Your task to perform on an android device: Nike Air Max 2020 shoes on Nike.com Image 0: 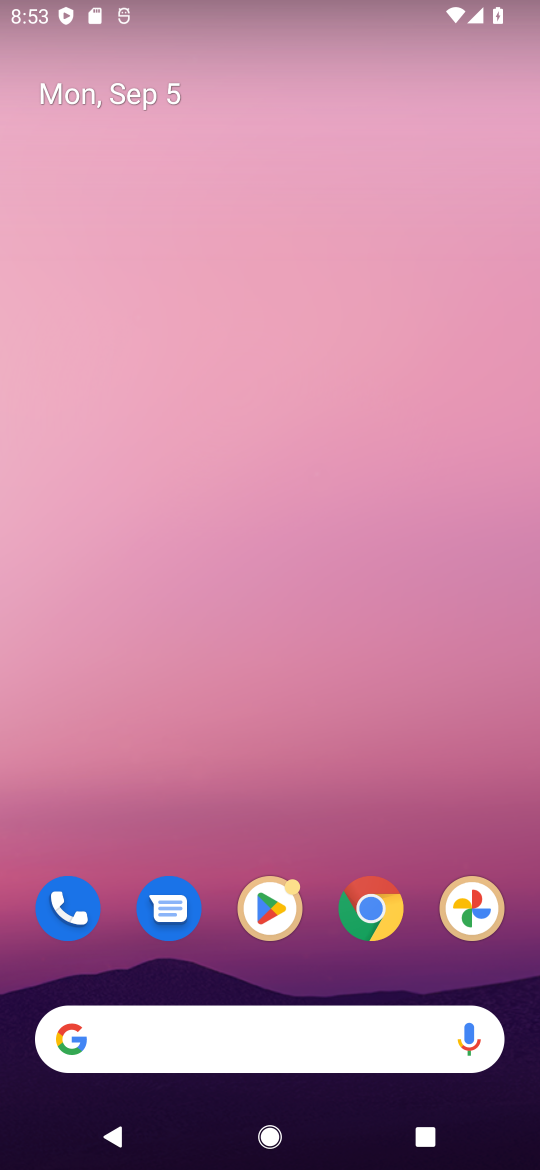
Step 0: click (378, 950)
Your task to perform on an android device: Nike Air Max 2020 shoes on Nike.com Image 1: 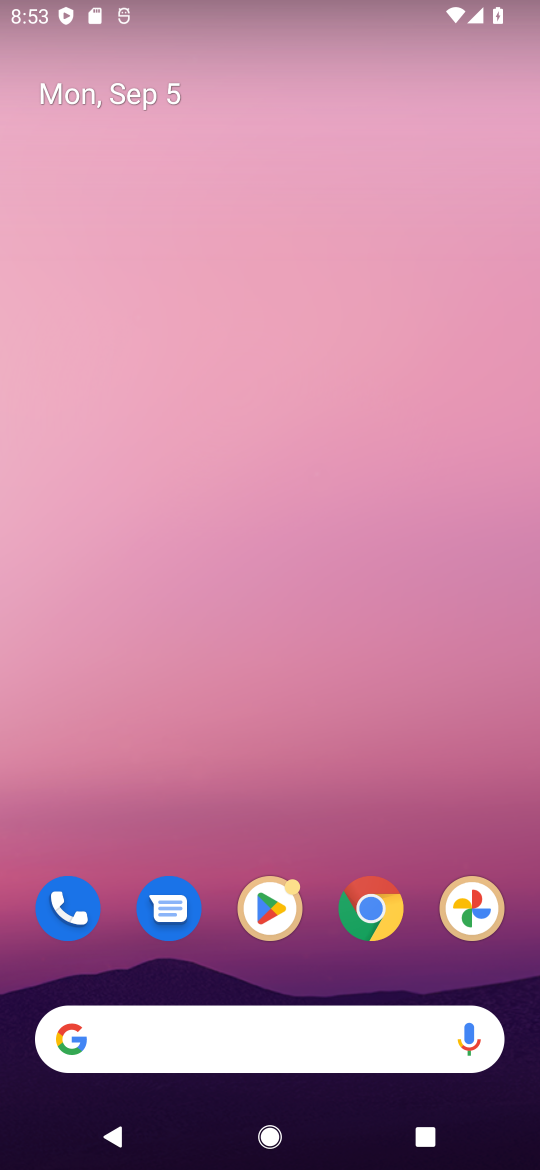
Step 1: click (368, 925)
Your task to perform on an android device: Nike Air Max 2020 shoes on Nike.com Image 2: 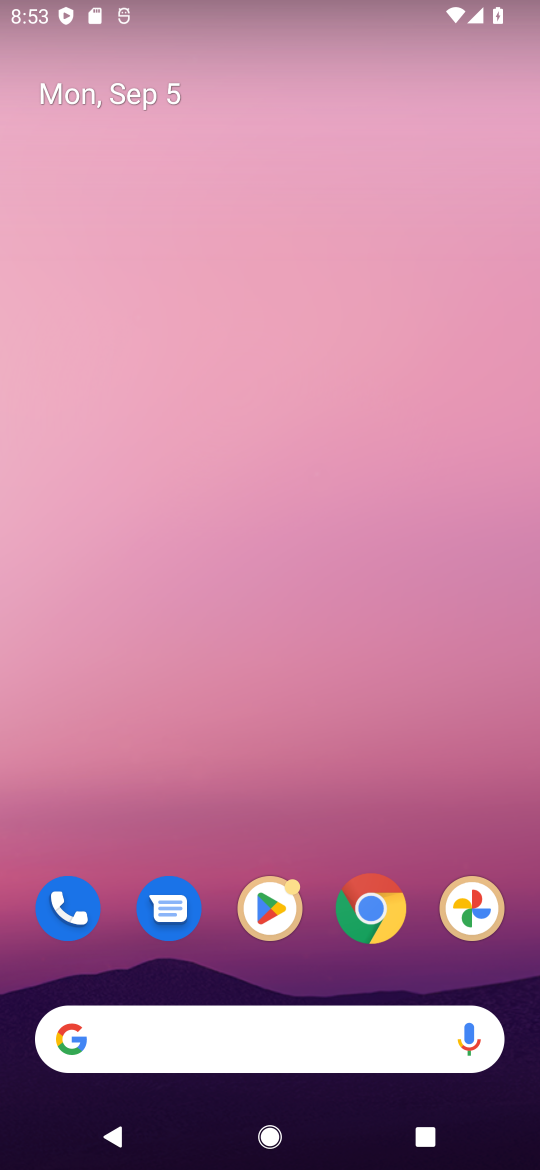
Step 2: click (379, 896)
Your task to perform on an android device: Nike Air Max 2020 shoes on Nike.com Image 3: 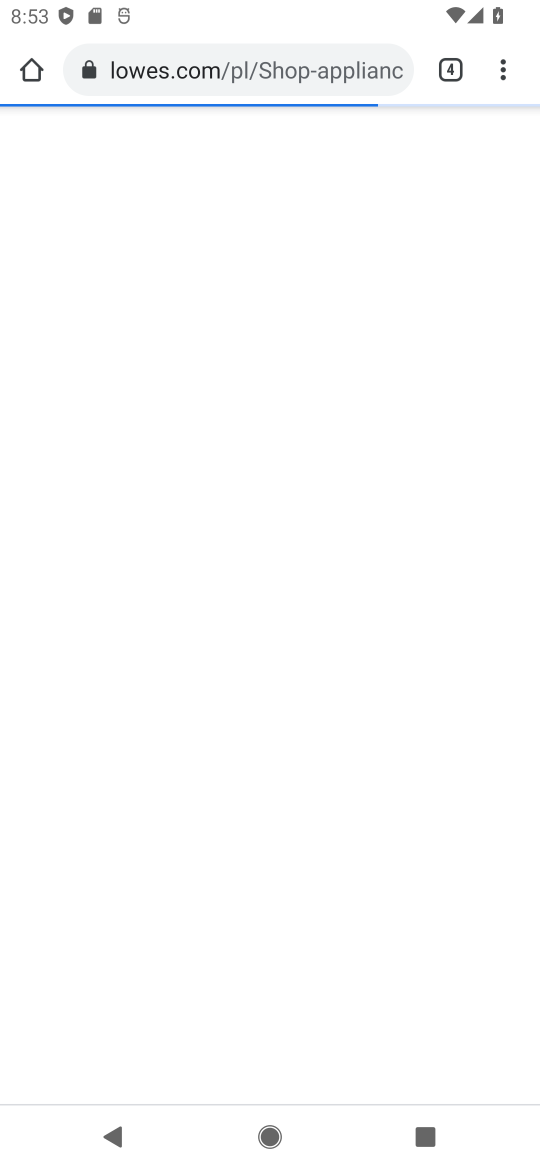
Step 3: click (318, 57)
Your task to perform on an android device: Nike Air Max 2020 shoes on Nike.com Image 4: 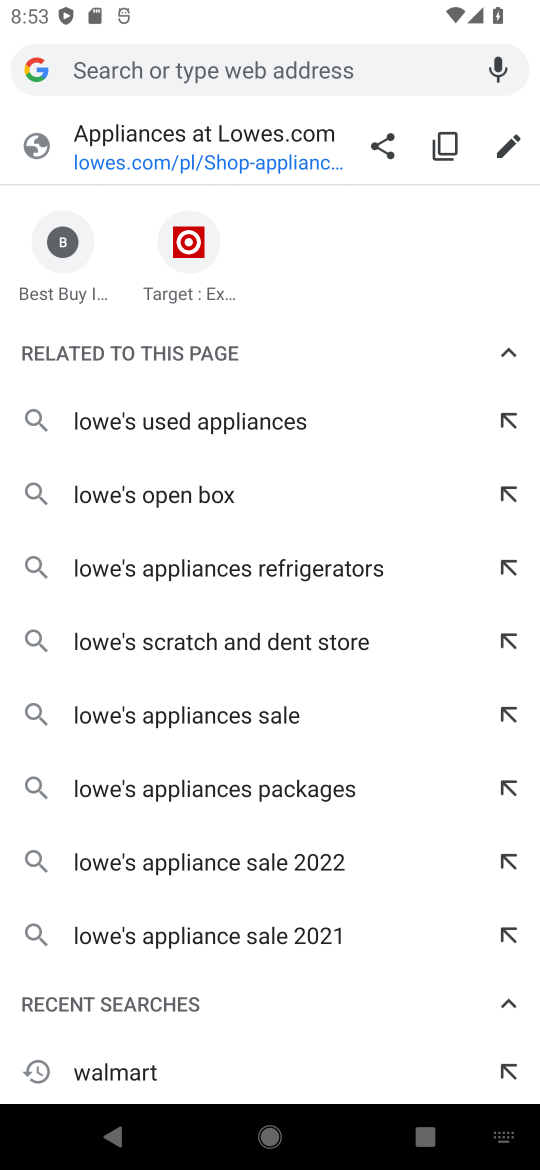
Step 4: type "Nike.com"
Your task to perform on an android device: Nike Air Max 2020 shoes on Nike.com Image 5: 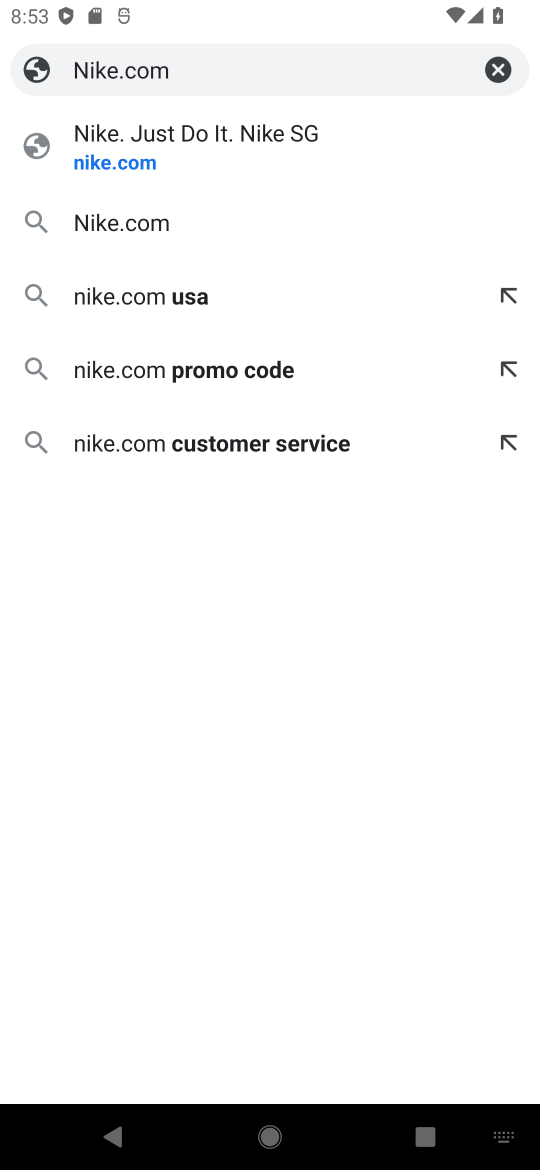
Step 5: click (127, 128)
Your task to perform on an android device: Nike Air Max 2020 shoes on Nike.com Image 6: 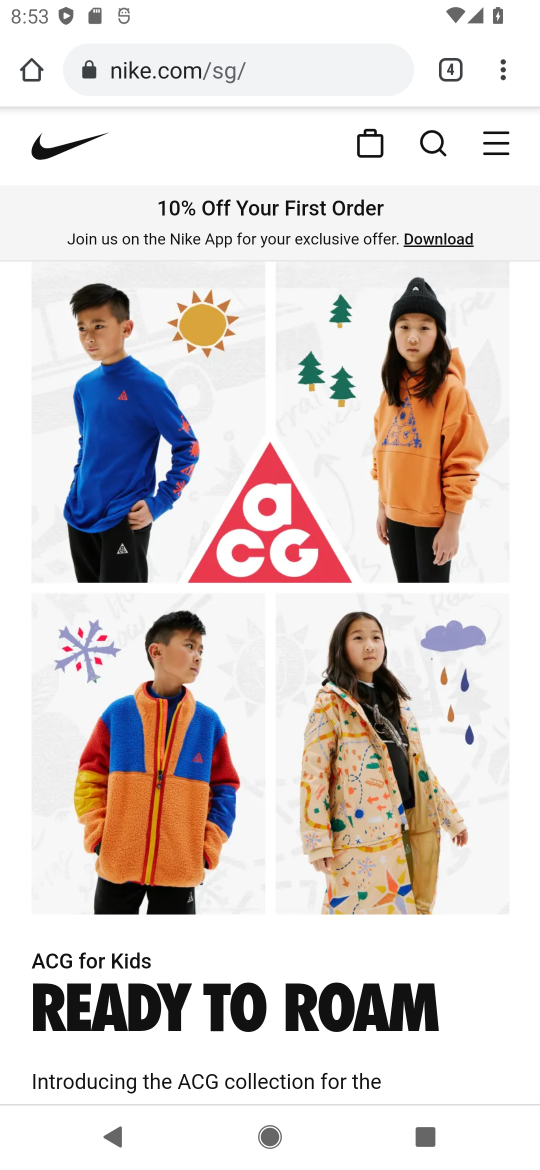
Step 6: click (433, 143)
Your task to perform on an android device: Nike Air Max 2020 shoes on Nike.com Image 7: 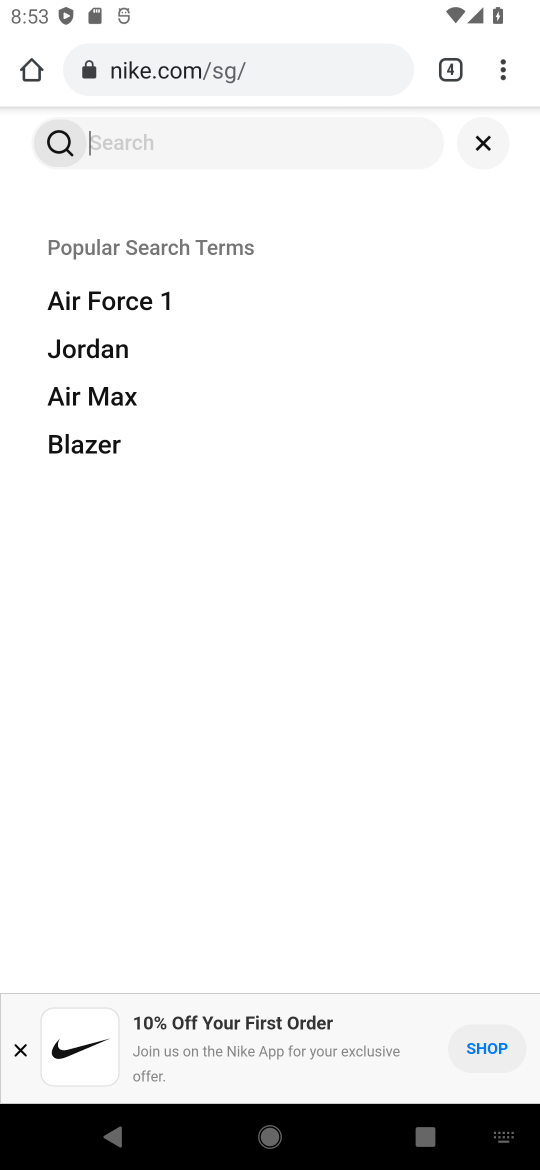
Step 7: type "Air Max 2020 shoes"
Your task to perform on an android device: Nike Air Max 2020 shoes on Nike.com Image 8: 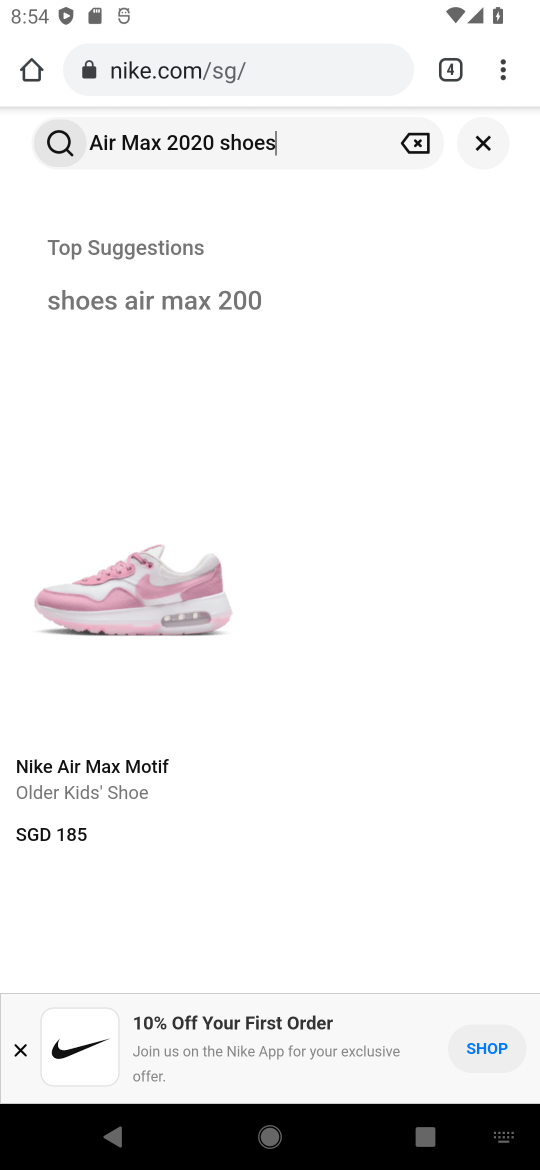
Step 8: click (73, 135)
Your task to perform on an android device: Nike Air Max 2020 shoes on Nike.com Image 9: 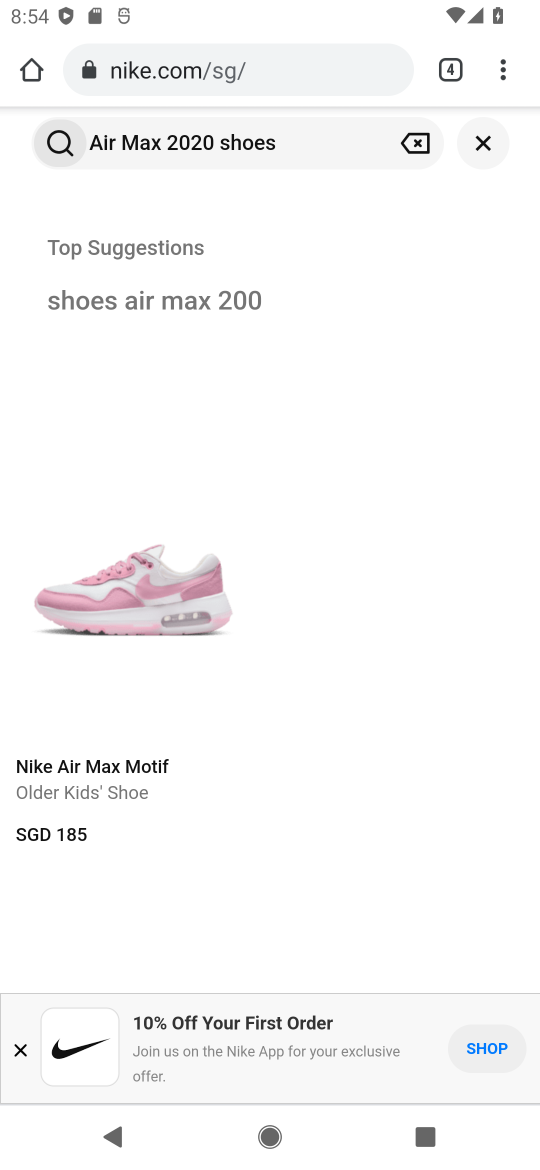
Step 9: click (169, 311)
Your task to perform on an android device: Nike Air Max 2020 shoes on Nike.com Image 10: 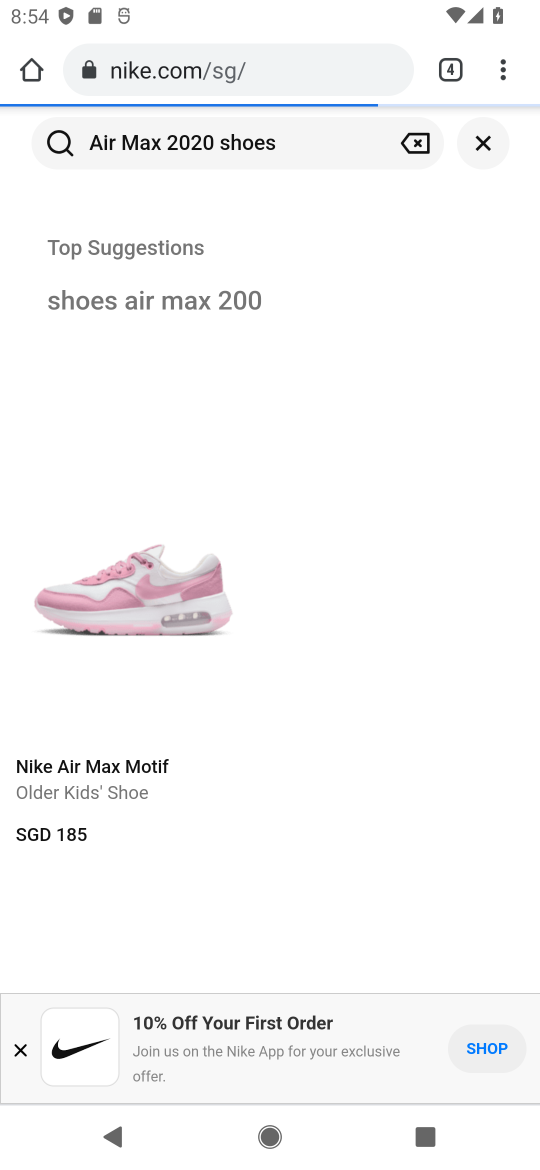
Step 10: task complete